Your task to perform on an android device: Open CNN.com Image 0: 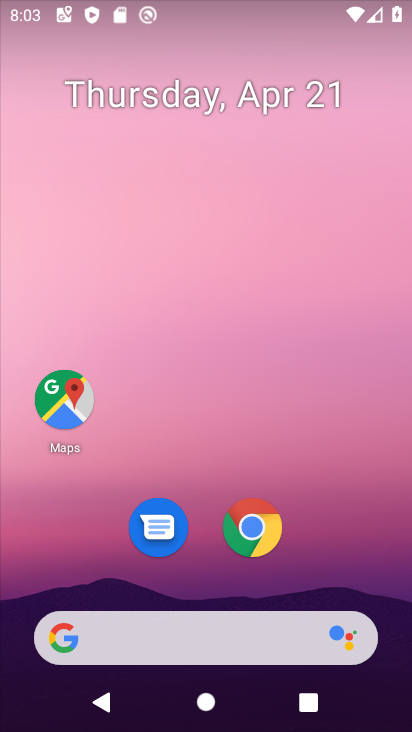
Step 0: drag from (284, 598) to (382, 131)
Your task to perform on an android device: Open CNN.com Image 1: 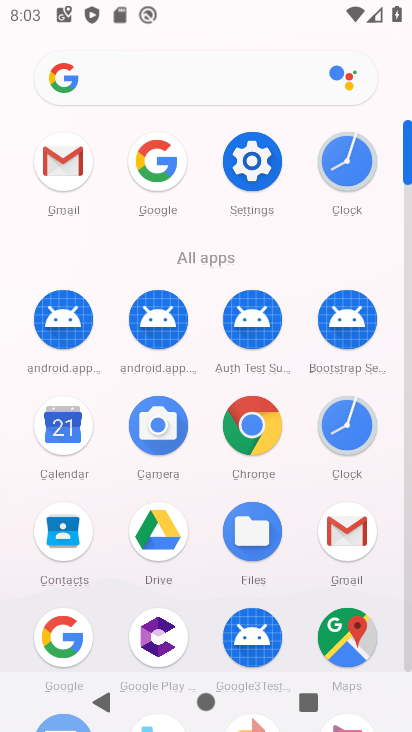
Step 1: click (250, 441)
Your task to perform on an android device: Open CNN.com Image 2: 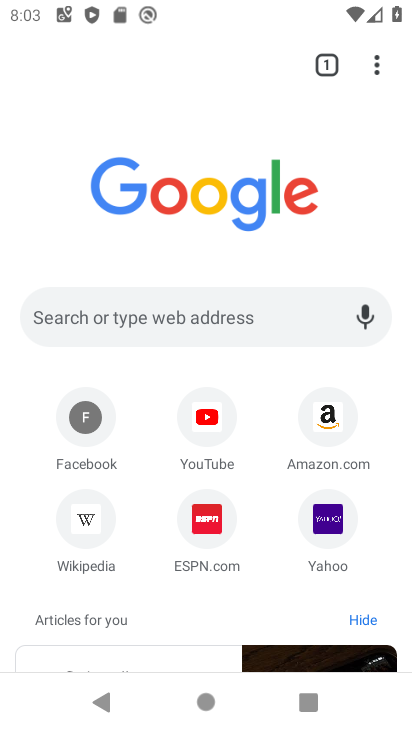
Step 2: drag from (160, 497) to (198, 344)
Your task to perform on an android device: Open CNN.com Image 3: 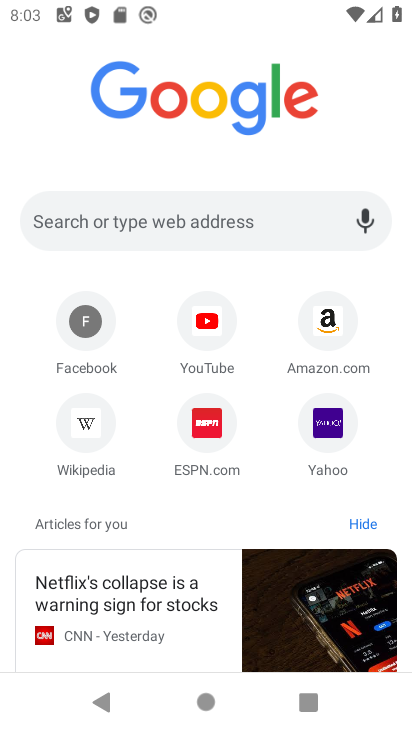
Step 3: click (238, 230)
Your task to perform on an android device: Open CNN.com Image 4: 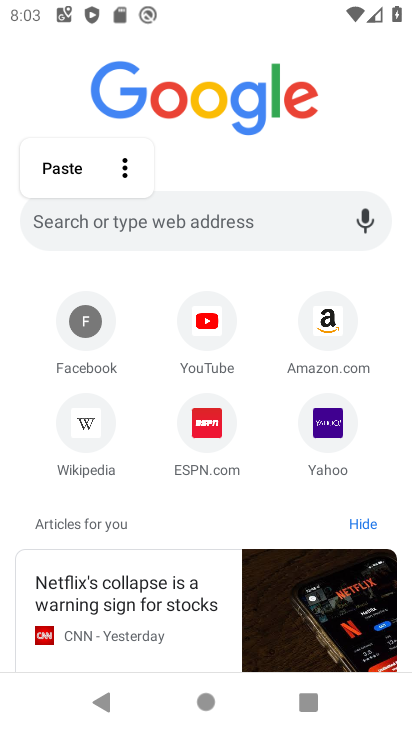
Step 4: type "cnn.com"
Your task to perform on an android device: Open CNN.com Image 5: 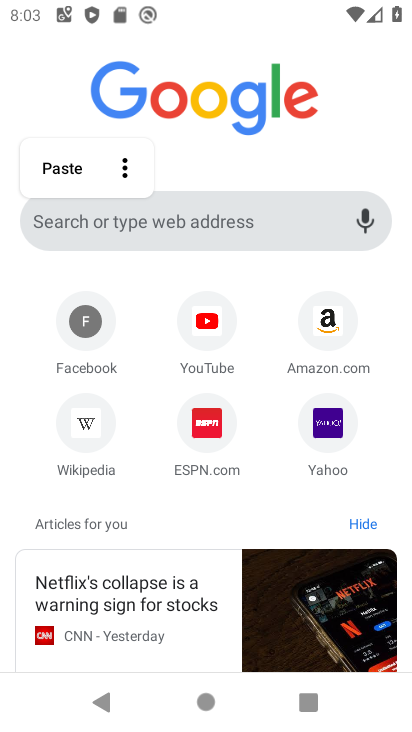
Step 5: click (278, 202)
Your task to perform on an android device: Open CNN.com Image 6: 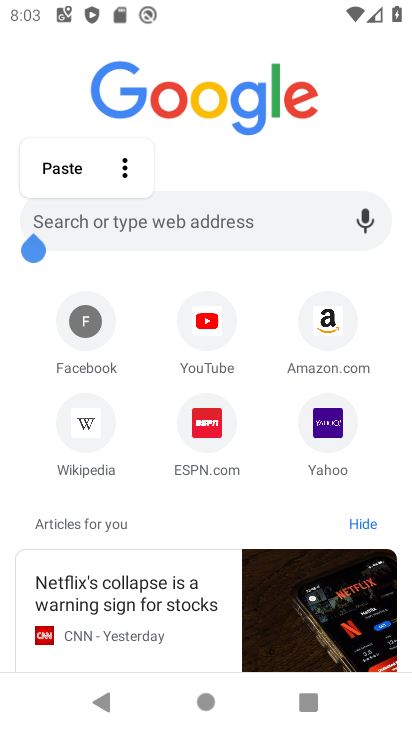
Step 6: click (233, 204)
Your task to perform on an android device: Open CNN.com Image 7: 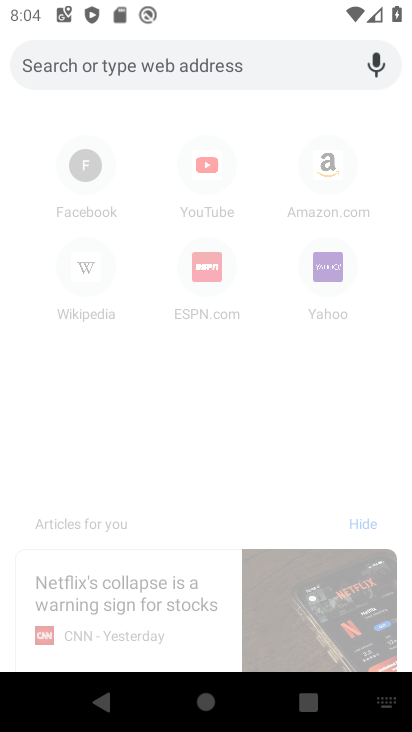
Step 7: type "cnn.com"
Your task to perform on an android device: Open CNN.com Image 8: 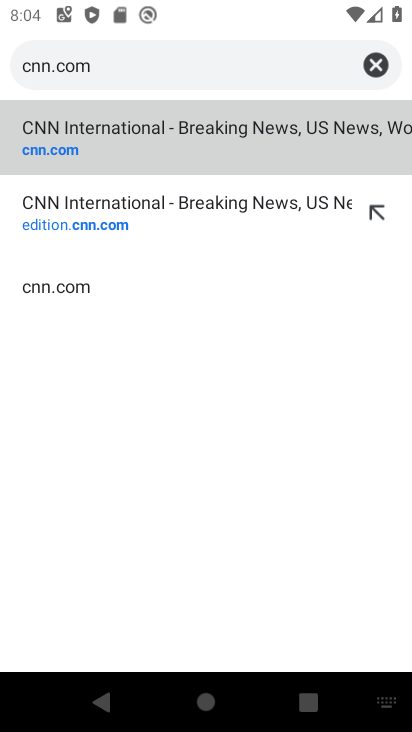
Step 8: click (101, 133)
Your task to perform on an android device: Open CNN.com Image 9: 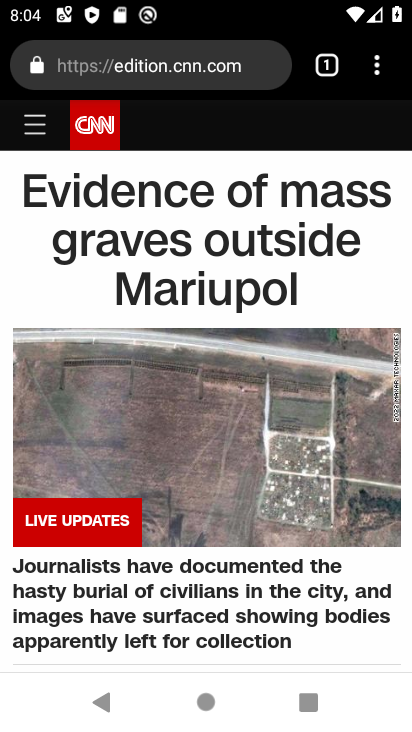
Step 9: task complete